Your task to perform on an android device: toggle javascript in the chrome app Image 0: 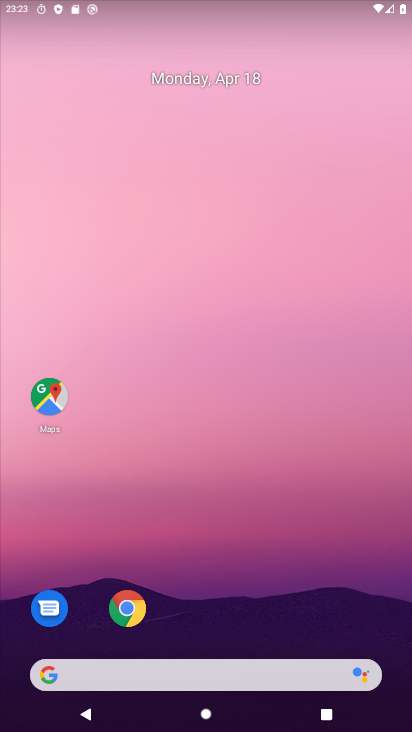
Step 0: drag from (262, 583) to (307, 135)
Your task to perform on an android device: toggle javascript in the chrome app Image 1: 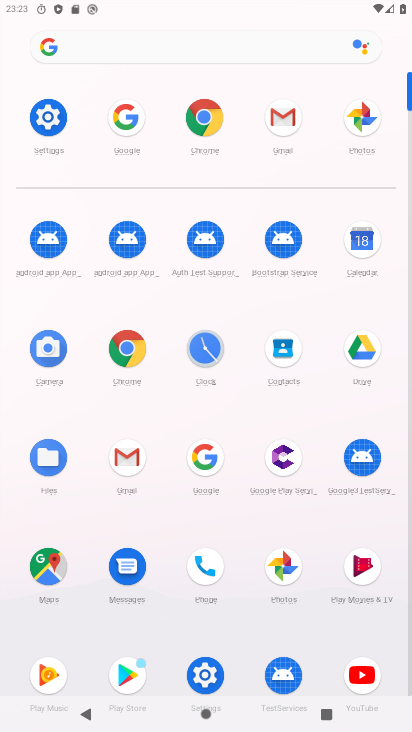
Step 1: click (202, 119)
Your task to perform on an android device: toggle javascript in the chrome app Image 2: 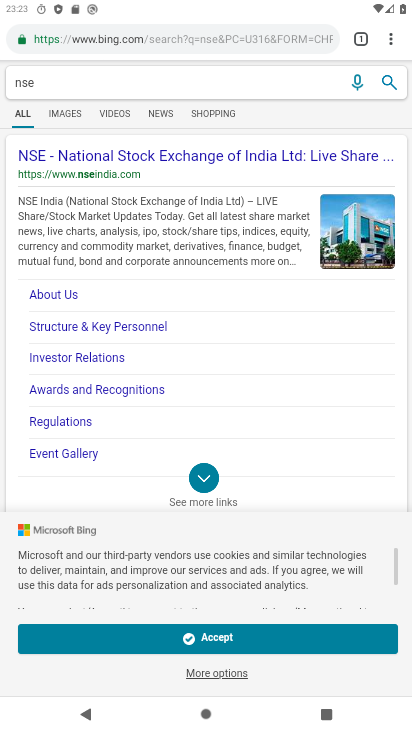
Step 2: click (387, 41)
Your task to perform on an android device: toggle javascript in the chrome app Image 3: 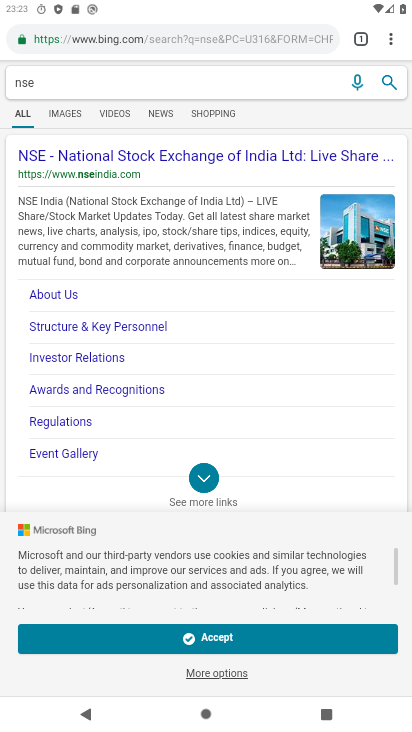
Step 3: drag from (391, 42) to (300, 503)
Your task to perform on an android device: toggle javascript in the chrome app Image 4: 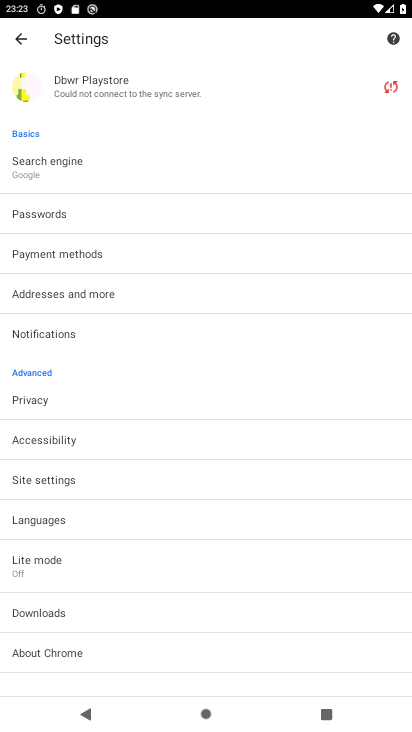
Step 4: click (135, 483)
Your task to perform on an android device: toggle javascript in the chrome app Image 5: 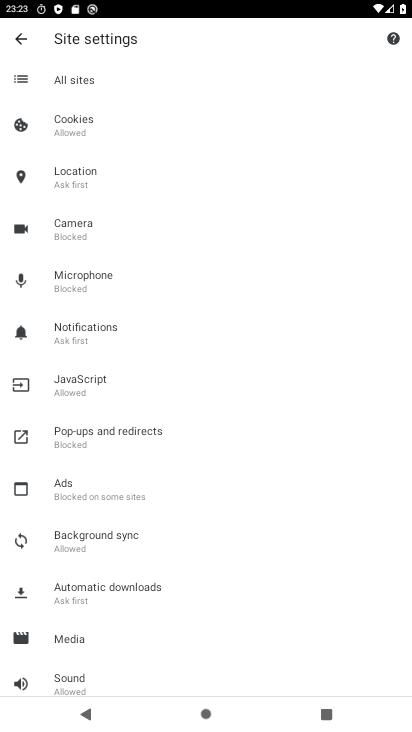
Step 5: click (141, 372)
Your task to perform on an android device: toggle javascript in the chrome app Image 6: 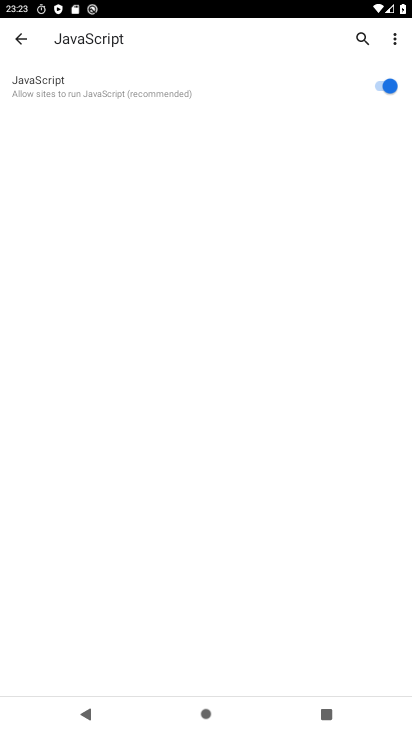
Step 6: click (390, 89)
Your task to perform on an android device: toggle javascript in the chrome app Image 7: 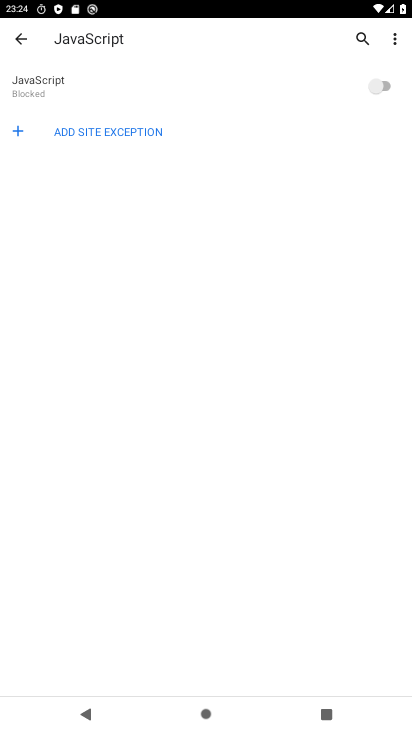
Step 7: task complete